Your task to perform on an android device: turn on showing notifications on the lock screen Image 0: 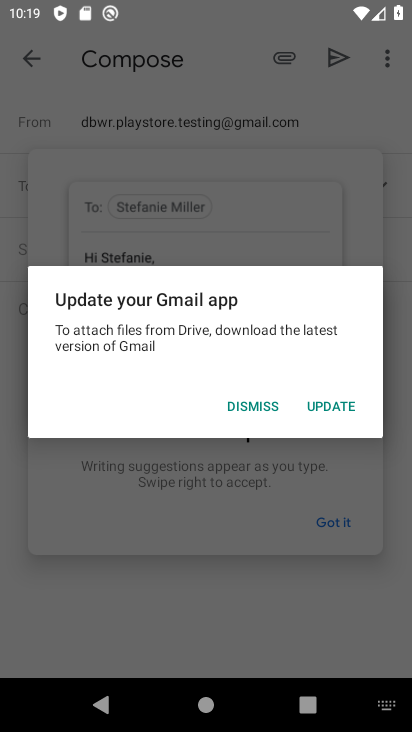
Step 0: press home button
Your task to perform on an android device: turn on showing notifications on the lock screen Image 1: 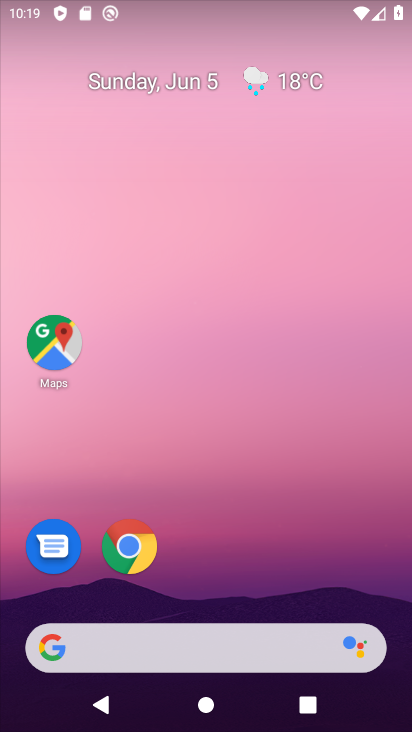
Step 1: drag from (159, 724) to (167, 91)
Your task to perform on an android device: turn on showing notifications on the lock screen Image 2: 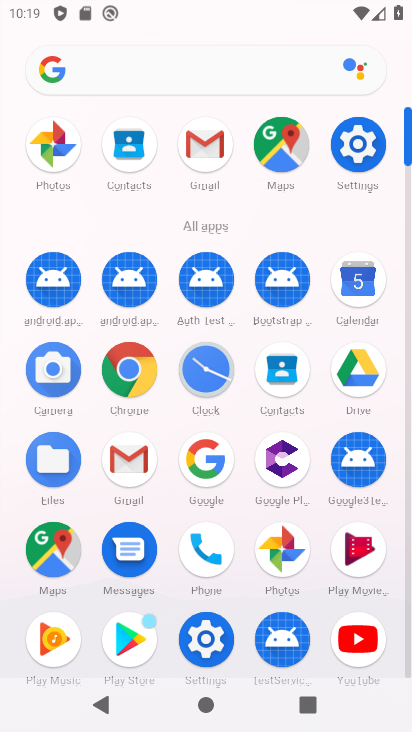
Step 2: click (366, 146)
Your task to perform on an android device: turn on showing notifications on the lock screen Image 3: 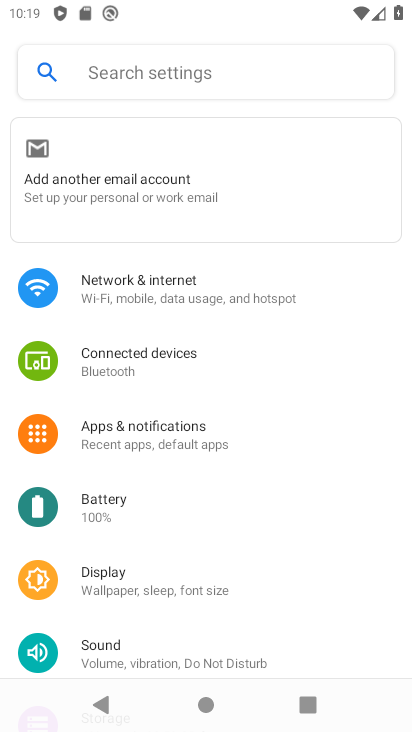
Step 3: click (177, 428)
Your task to perform on an android device: turn on showing notifications on the lock screen Image 4: 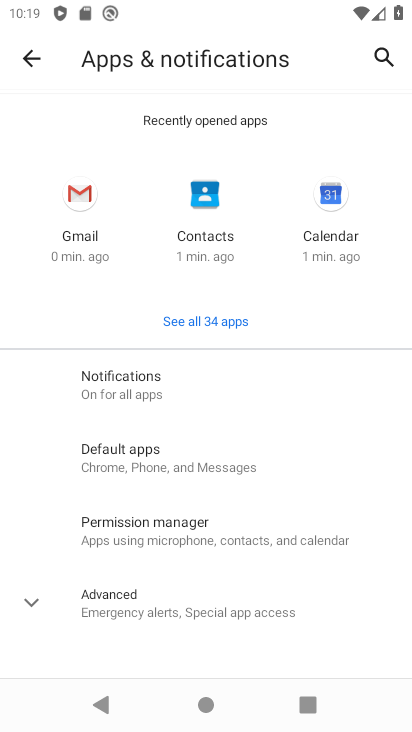
Step 4: click (108, 404)
Your task to perform on an android device: turn on showing notifications on the lock screen Image 5: 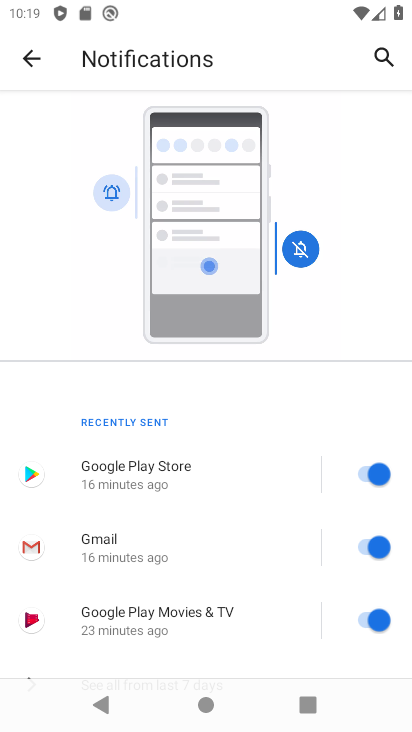
Step 5: drag from (191, 632) to (211, 318)
Your task to perform on an android device: turn on showing notifications on the lock screen Image 6: 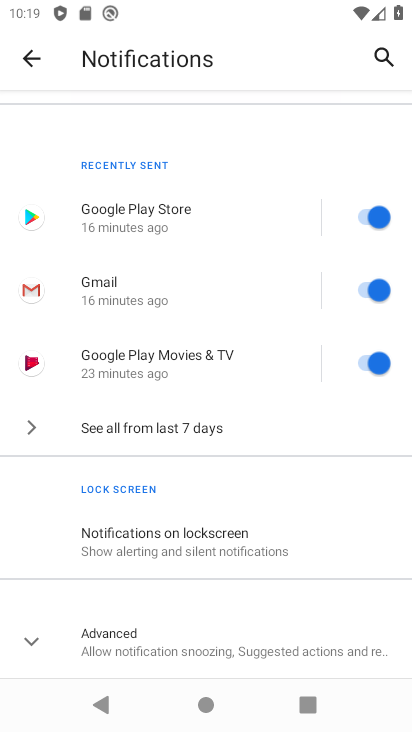
Step 6: click (221, 548)
Your task to perform on an android device: turn on showing notifications on the lock screen Image 7: 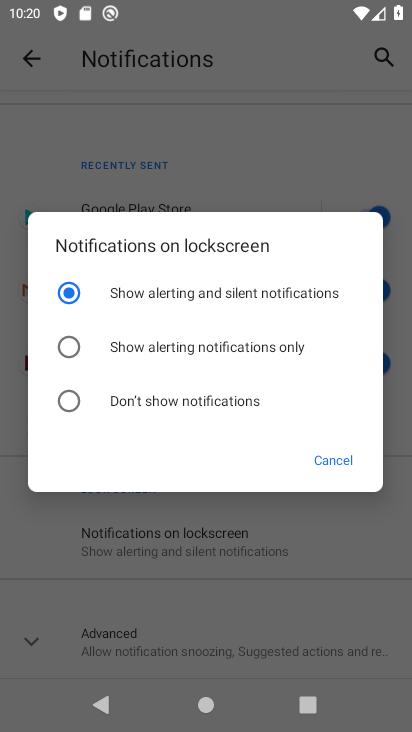
Step 7: task complete